Your task to perform on an android device: Go to settings Image 0: 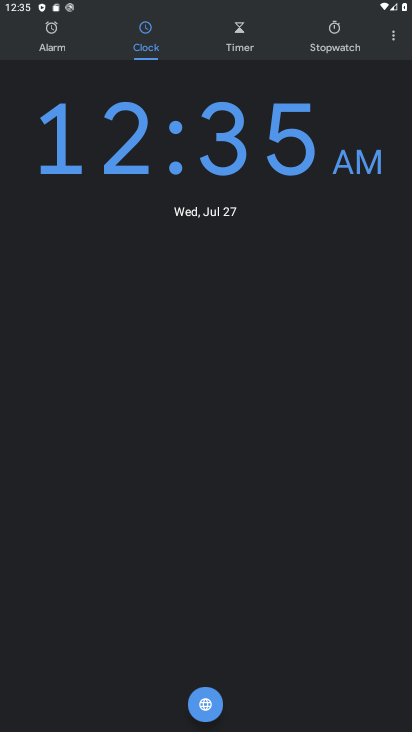
Step 0: press home button
Your task to perform on an android device: Go to settings Image 1: 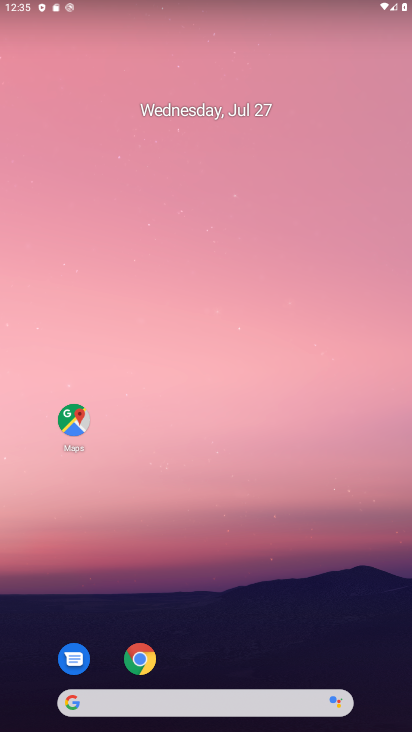
Step 1: drag from (307, 684) to (252, 143)
Your task to perform on an android device: Go to settings Image 2: 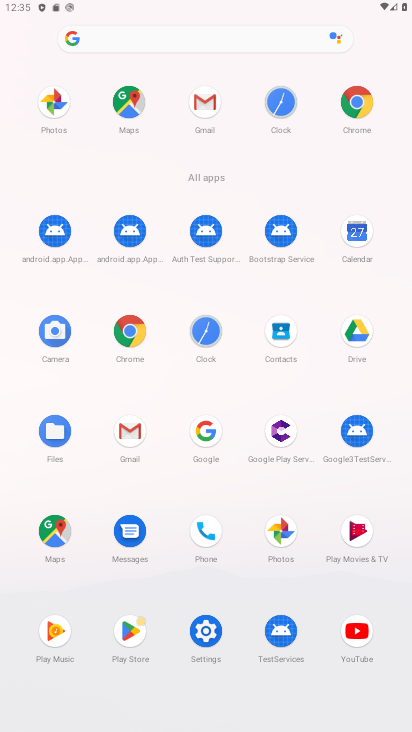
Step 2: click (210, 630)
Your task to perform on an android device: Go to settings Image 3: 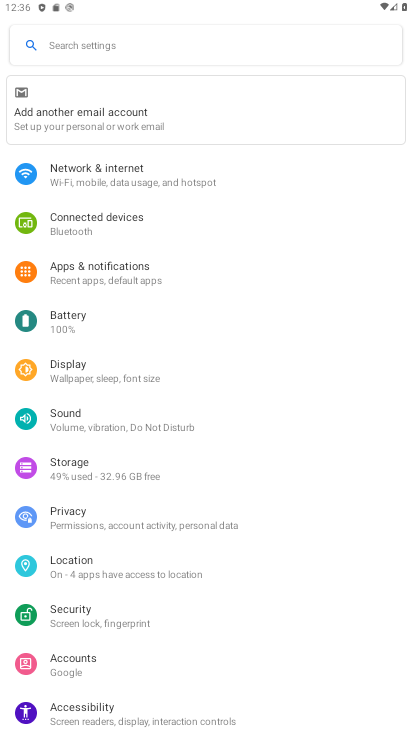
Step 3: task complete